Your task to perform on an android device: set default search engine in the chrome app Image 0: 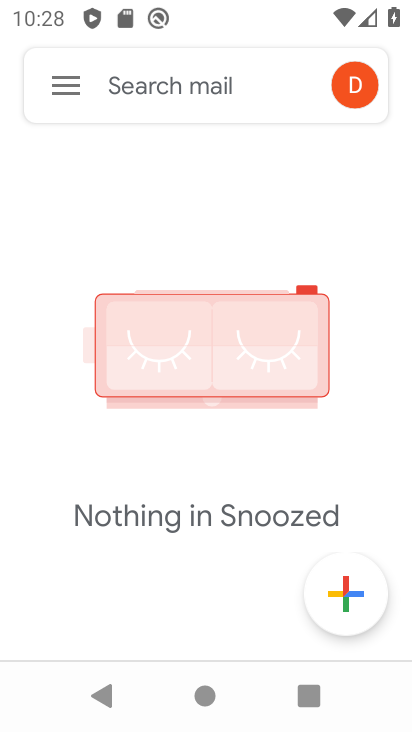
Step 0: press home button
Your task to perform on an android device: set default search engine in the chrome app Image 1: 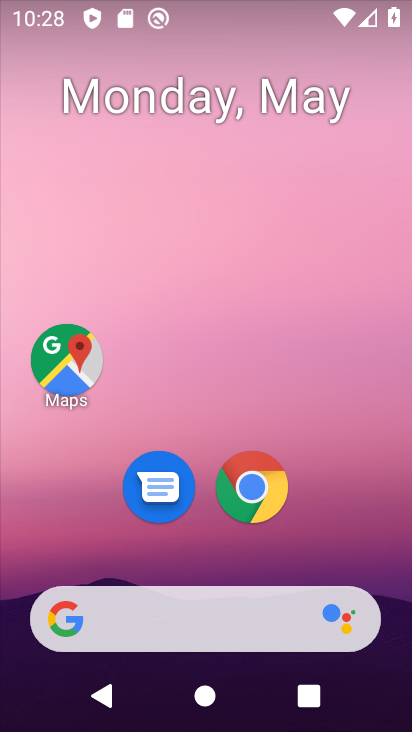
Step 1: drag from (377, 551) to (370, 193)
Your task to perform on an android device: set default search engine in the chrome app Image 2: 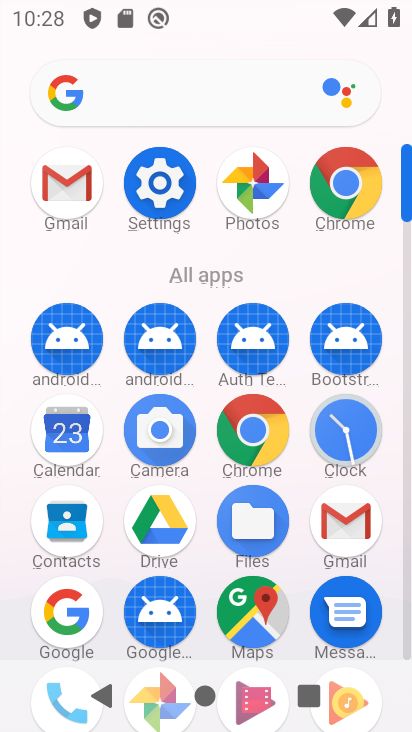
Step 2: click (263, 446)
Your task to perform on an android device: set default search engine in the chrome app Image 3: 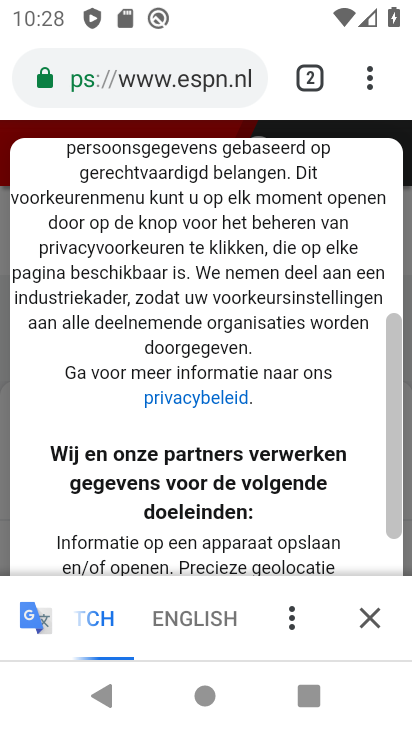
Step 3: click (366, 97)
Your task to perform on an android device: set default search engine in the chrome app Image 4: 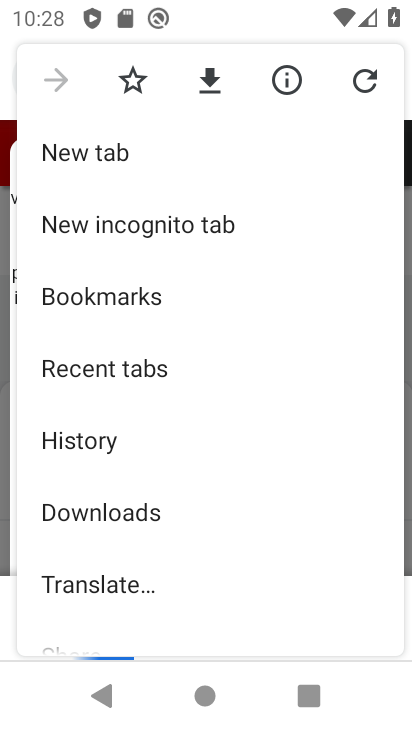
Step 4: drag from (308, 490) to (322, 380)
Your task to perform on an android device: set default search engine in the chrome app Image 5: 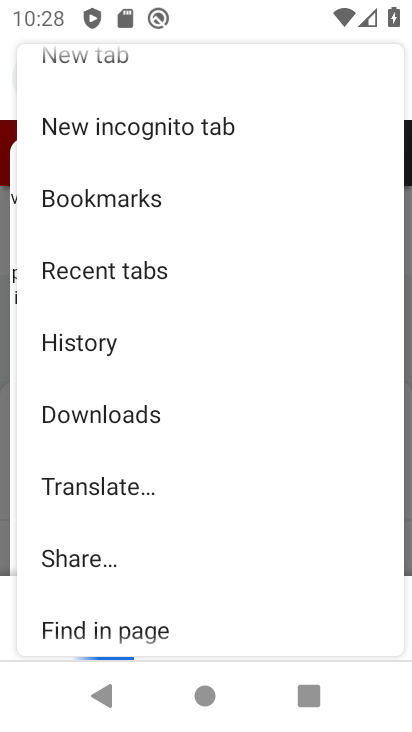
Step 5: drag from (318, 582) to (318, 462)
Your task to perform on an android device: set default search engine in the chrome app Image 6: 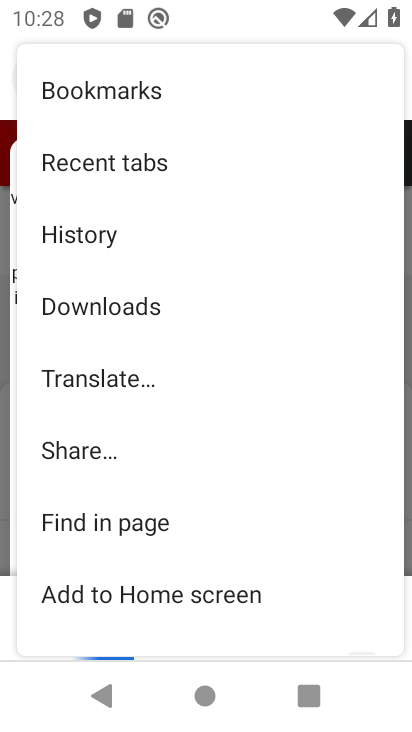
Step 6: drag from (288, 572) to (297, 488)
Your task to perform on an android device: set default search engine in the chrome app Image 7: 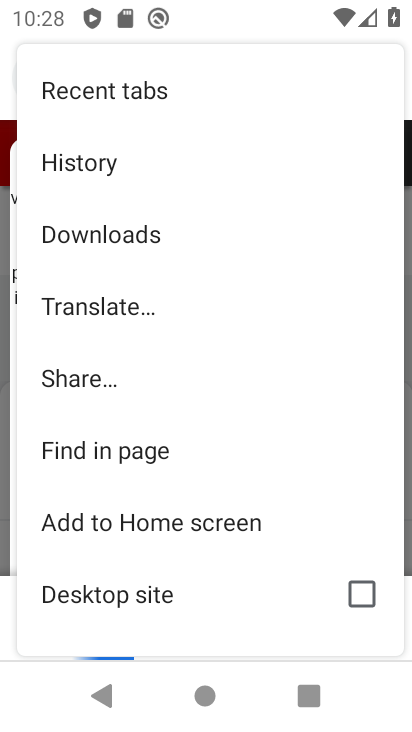
Step 7: drag from (284, 604) to (278, 505)
Your task to perform on an android device: set default search engine in the chrome app Image 8: 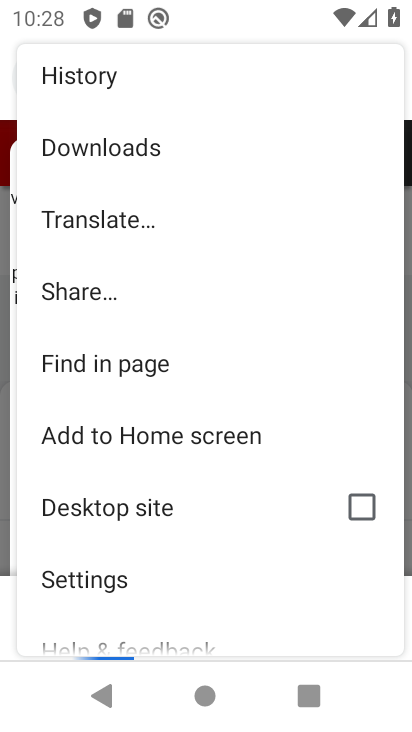
Step 8: click (111, 595)
Your task to perform on an android device: set default search engine in the chrome app Image 9: 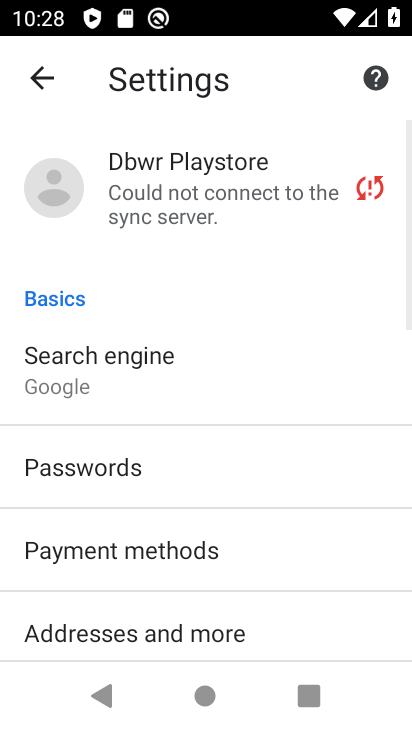
Step 9: drag from (256, 557) to (264, 474)
Your task to perform on an android device: set default search engine in the chrome app Image 10: 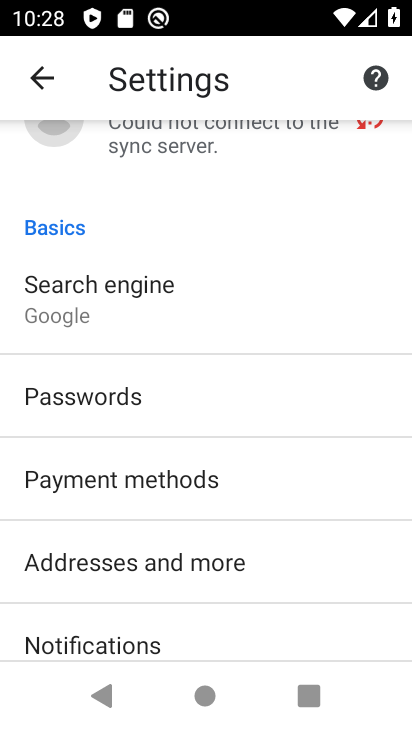
Step 10: drag from (277, 593) to (281, 508)
Your task to perform on an android device: set default search engine in the chrome app Image 11: 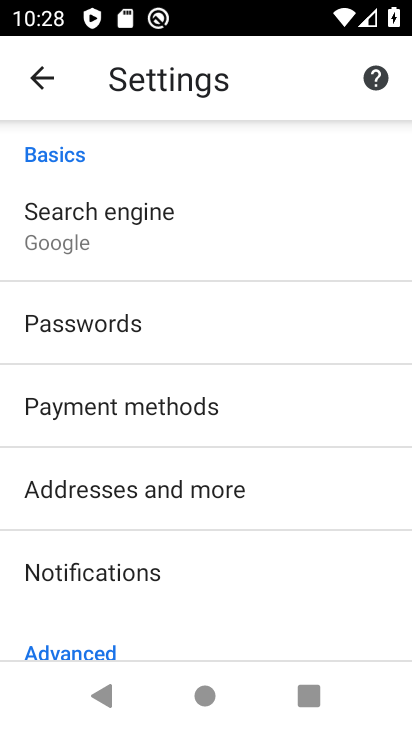
Step 11: drag from (279, 605) to (292, 519)
Your task to perform on an android device: set default search engine in the chrome app Image 12: 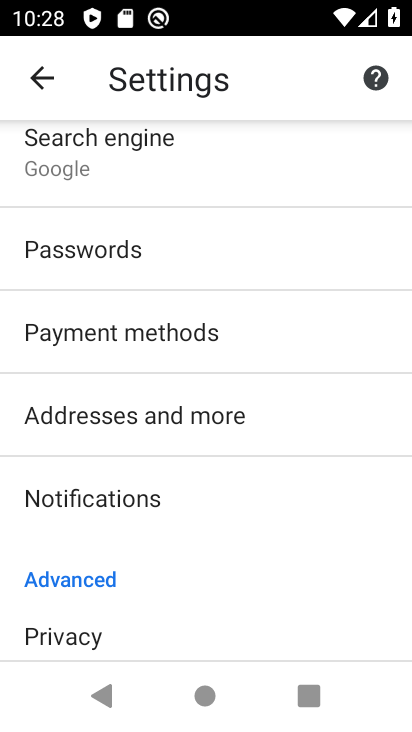
Step 12: drag from (277, 604) to (283, 521)
Your task to perform on an android device: set default search engine in the chrome app Image 13: 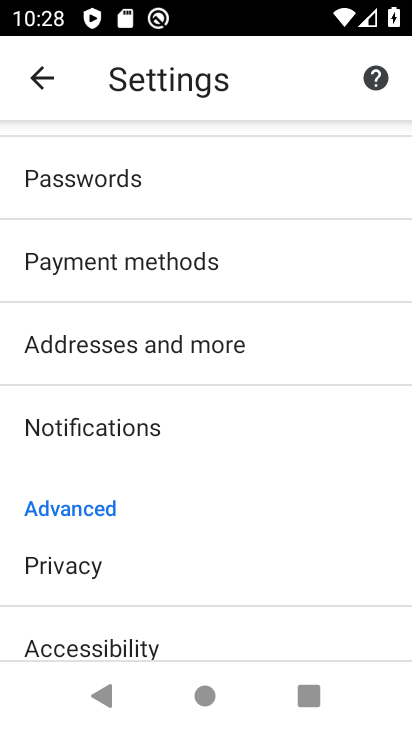
Step 13: drag from (274, 603) to (279, 546)
Your task to perform on an android device: set default search engine in the chrome app Image 14: 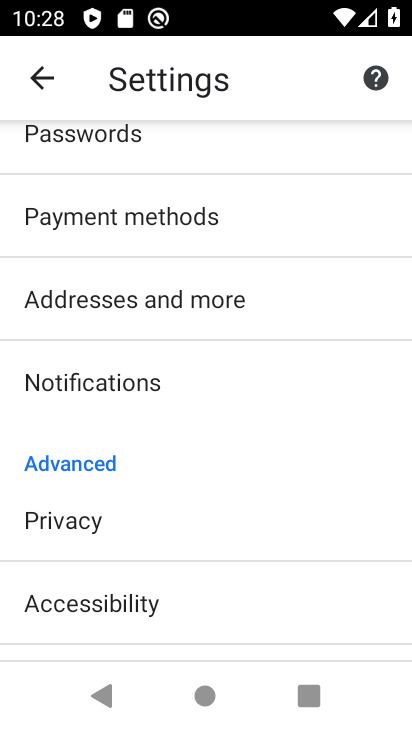
Step 14: drag from (272, 562) to (279, 464)
Your task to perform on an android device: set default search engine in the chrome app Image 15: 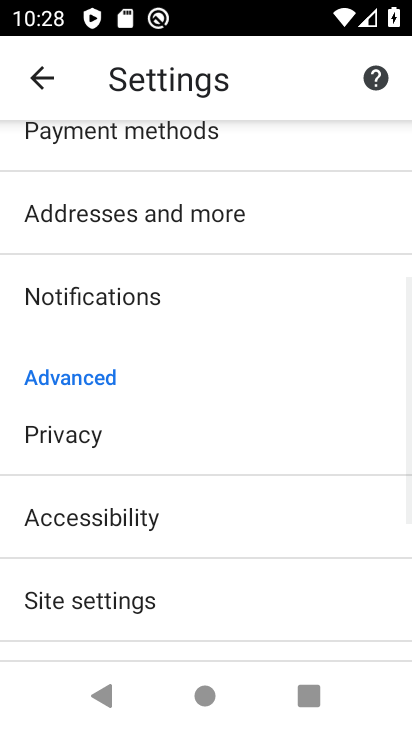
Step 15: drag from (257, 568) to (273, 503)
Your task to perform on an android device: set default search engine in the chrome app Image 16: 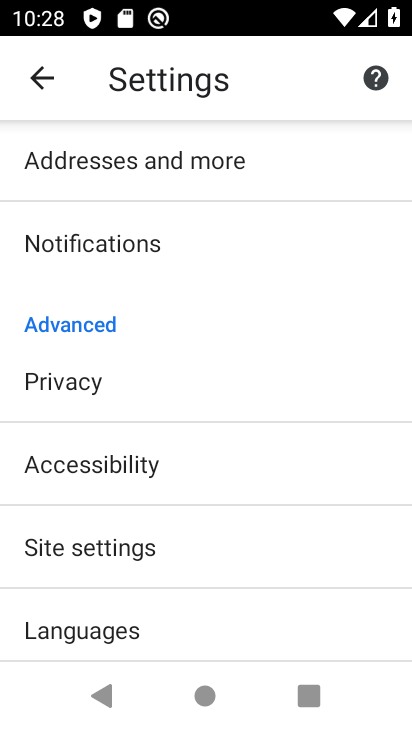
Step 16: drag from (273, 560) to (288, 451)
Your task to perform on an android device: set default search engine in the chrome app Image 17: 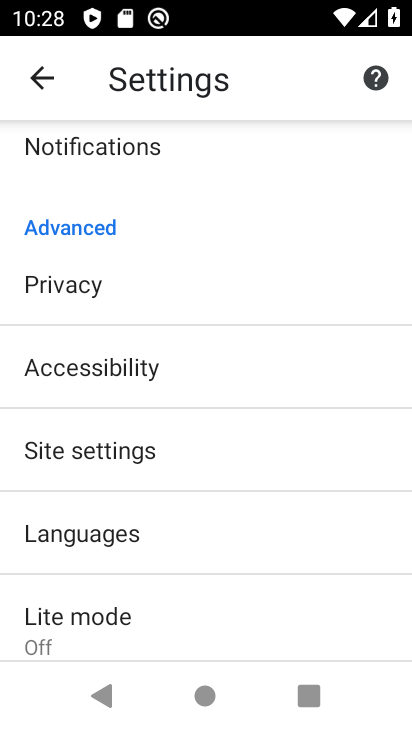
Step 17: drag from (290, 443) to (282, 502)
Your task to perform on an android device: set default search engine in the chrome app Image 18: 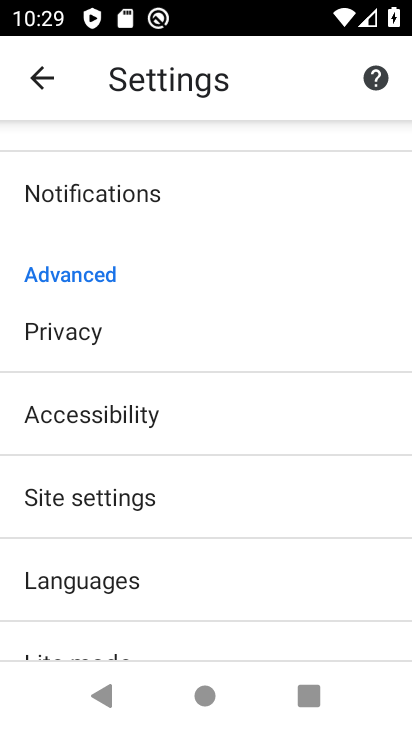
Step 18: drag from (293, 367) to (277, 525)
Your task to perform on an android device: set default search engine in the chrome app Image 19: 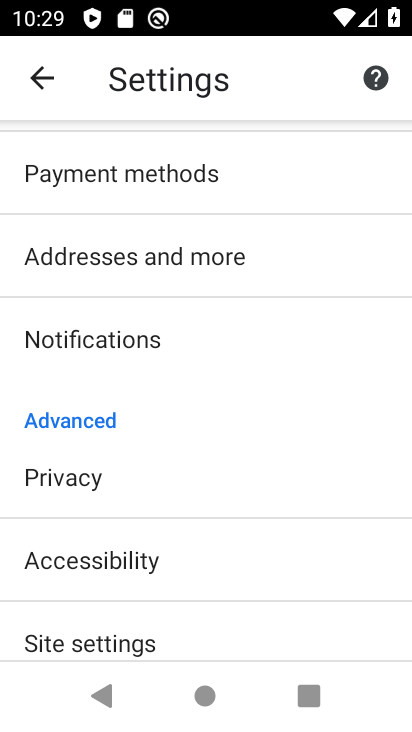
Step 19: drag from (271, 313) to (263, 489)
Your task to perform on an android device: set default search engine in the chrome app Image 20: 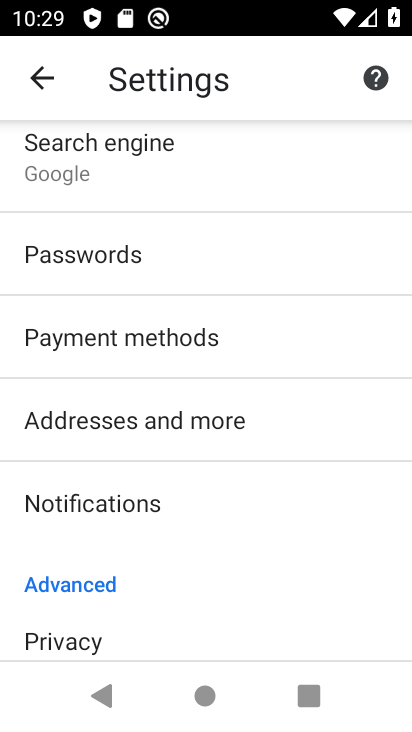
Step 20: click (171, 195)
Your task to perform on an android device: set default search engine in the chrome app Image 21: 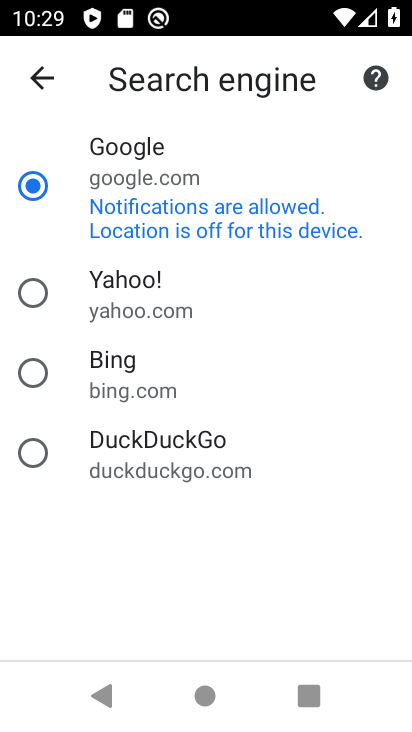
Step 21: click (141, 376)
Your task to perform on an android device: set default search engine in the chrome app Image 22: 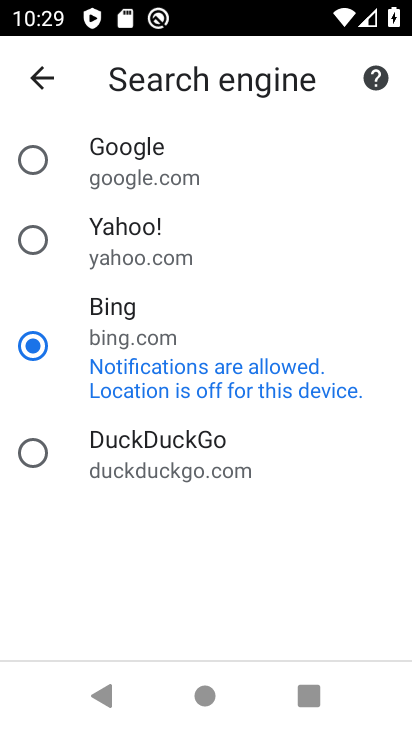
Step 22: task complete